Your task to perform on an android device: change alarm snooze length Image 0: 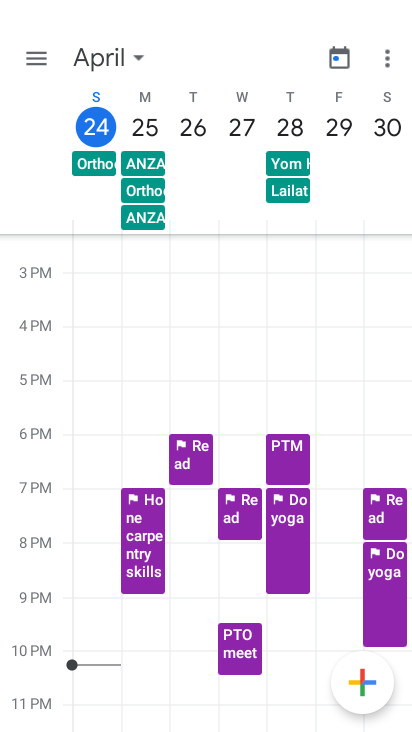
Step 0: press home button
Your task to perform on an android device: change alarm snooze length Image 1: 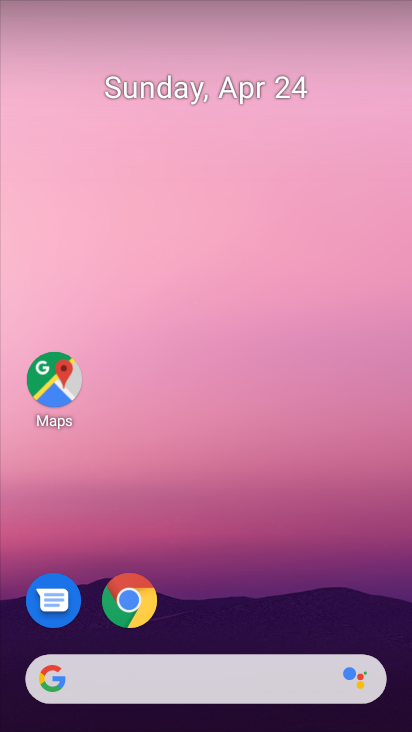
Step 1: drag from (249, 551) to (228, 130)
Your task to perform on an android device: change alarm snooze length Image 2: 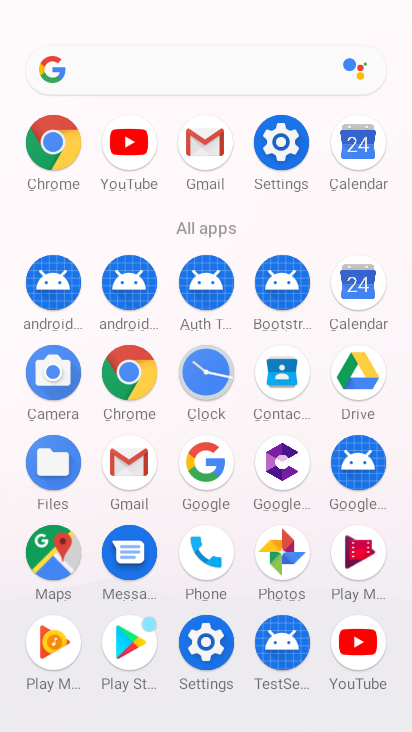
Step 2: click (190, 382)
Your task to perform on an android device: change alarm snooze length Image 3: 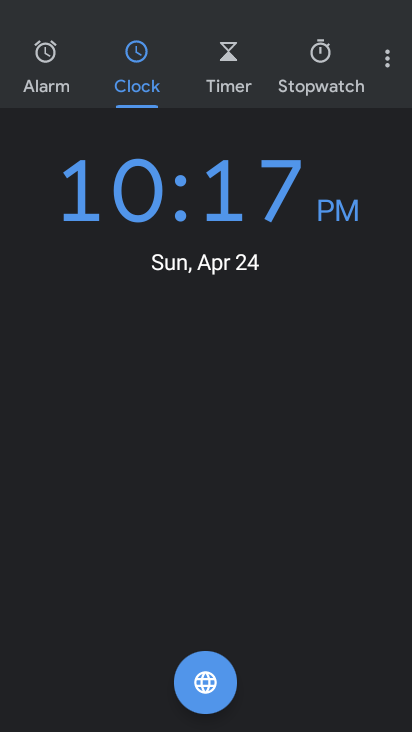
Step 3: click (384, 63)
Your task to perform on an android device: change alarm snooze length Image 4: 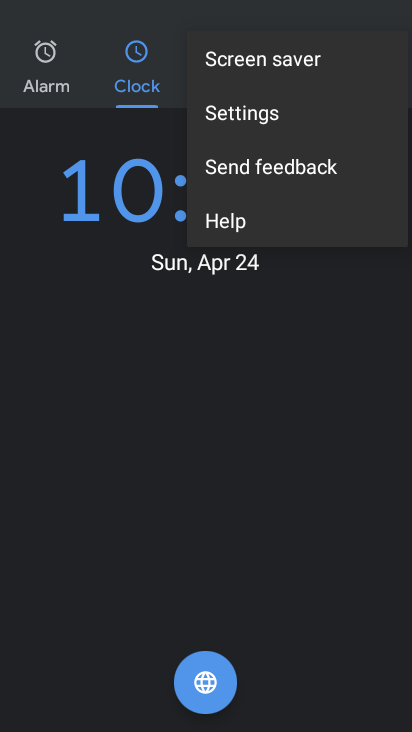
Step 4: click (251, 116)
Your task to perform on an android device: change alarm snooze length Image 5: 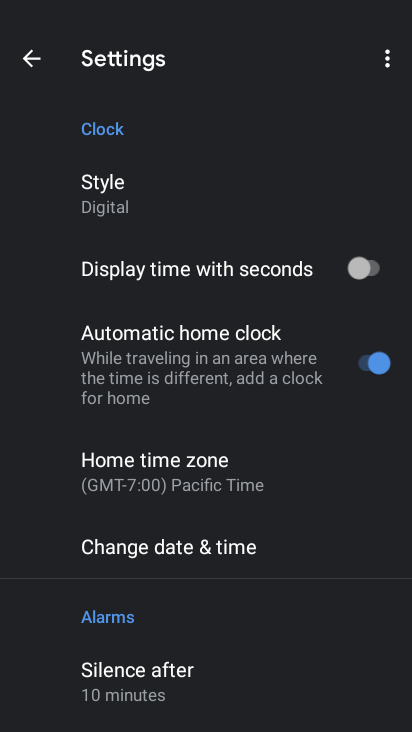
Step 5: drag from (236, 573) to (218, 261)
Your task to perform on an android device: change alarm snooze length Image 6: 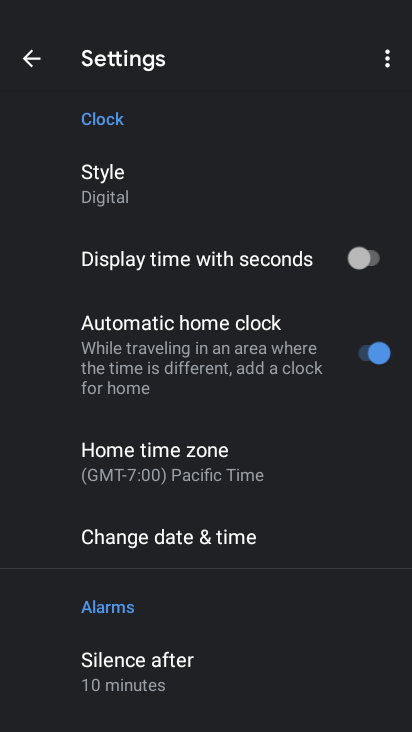
Step 6: drag from (229, 597) to (230, 260)
Your task to perform on an android device: change alarm snooze length Image 7: 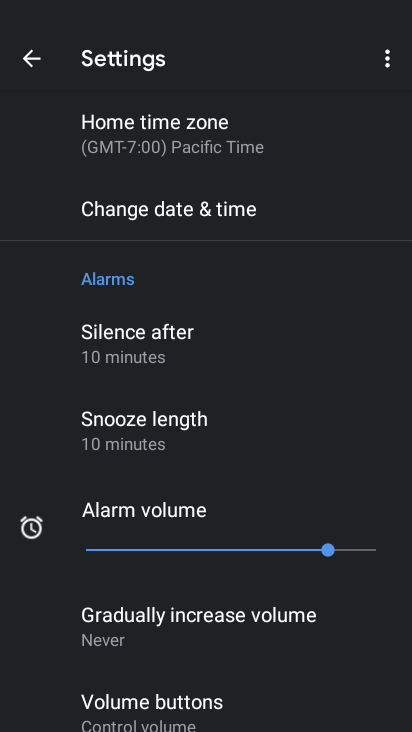
Step 7: drag from (239, 669) to (233, 253)
Your task to perform on an android device: change alarm snooze length Image 8: 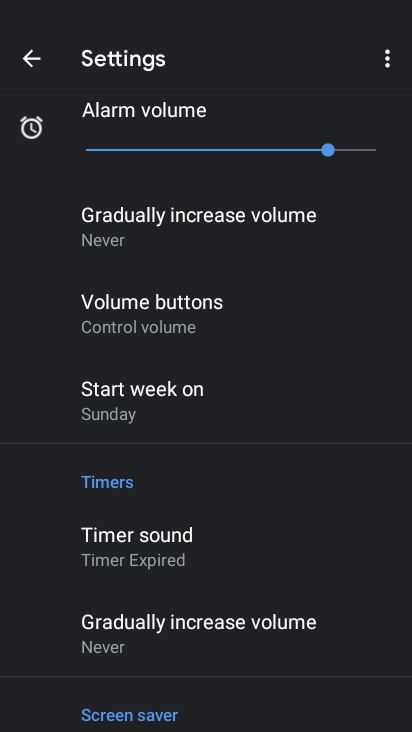
Step 8: drag from (251, 299) to (48, 730)
Your task to perform on an android device: change alarm snooze length Image 9: 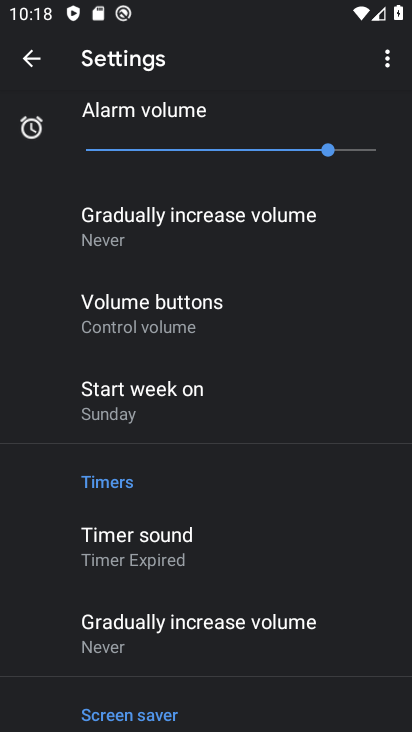
Step 9: drag from (235, 255) to (328, 609)
Your task to perform on an android device: change alarm snooze length Image 10: 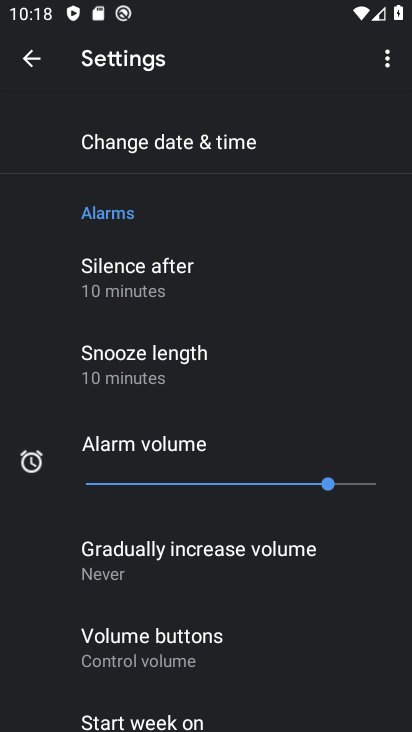
Step 10: click (148, 347)
Your task to perform on an android device: change alarm snooze length Image 11: 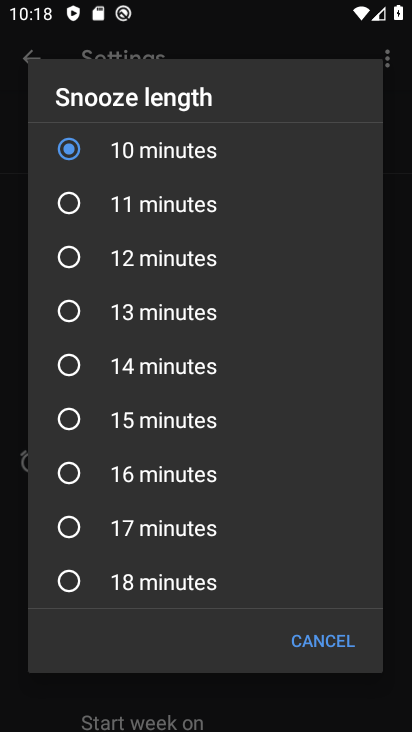
Step 11: click (70, 302)
Your task to perform on an android device: change alarm snooze length Image 12: 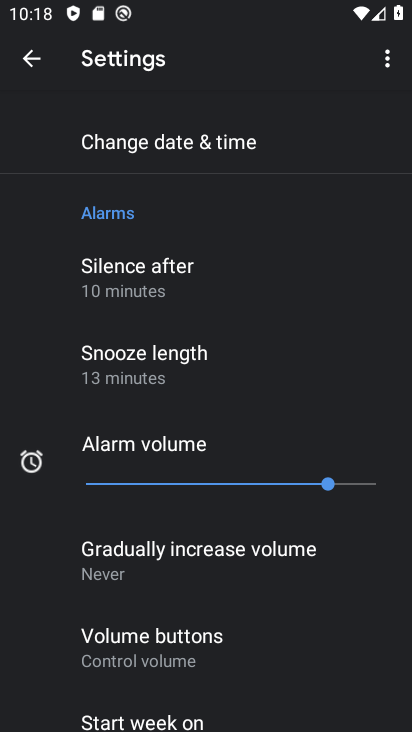
Step 12: task complete